Your task to perform on an android device: Open wifi settings Image 0: 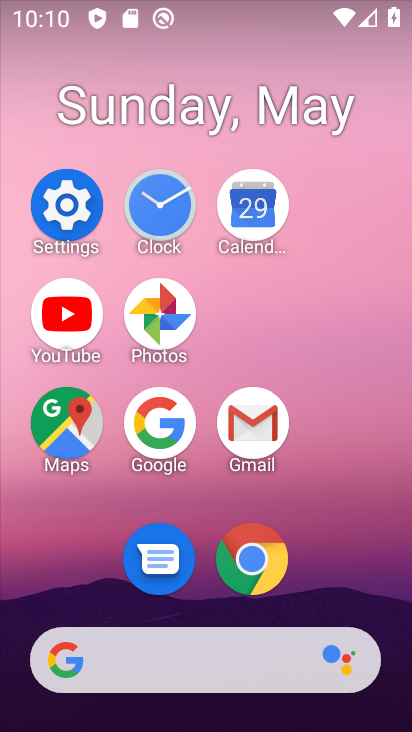
Step 0: click (82, 219)
Your task to perform on an android device: Open wifi settings Image 1: 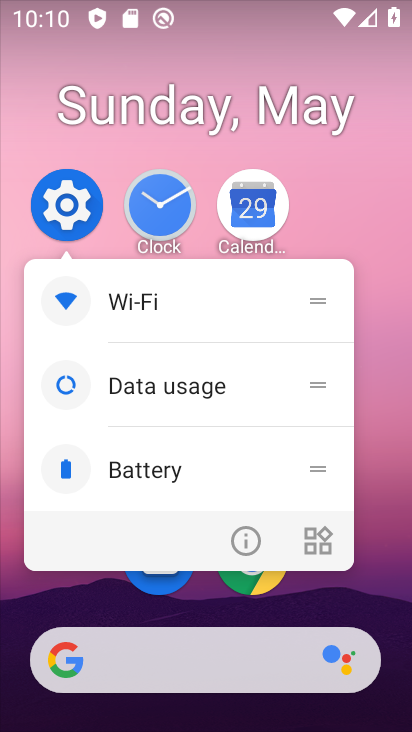
Step 1: click (158, 305)
Your task to perform on an android device: Open wifi settings Image 2: 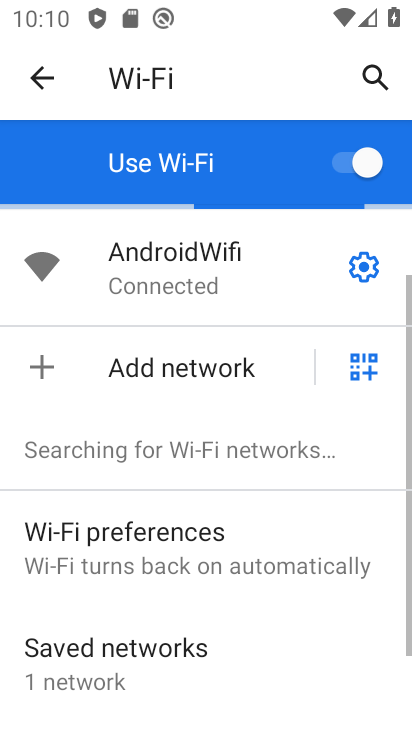
Step 2: click (366, 272)
Your task to perform on an android device: Open wifi settings Image 3: 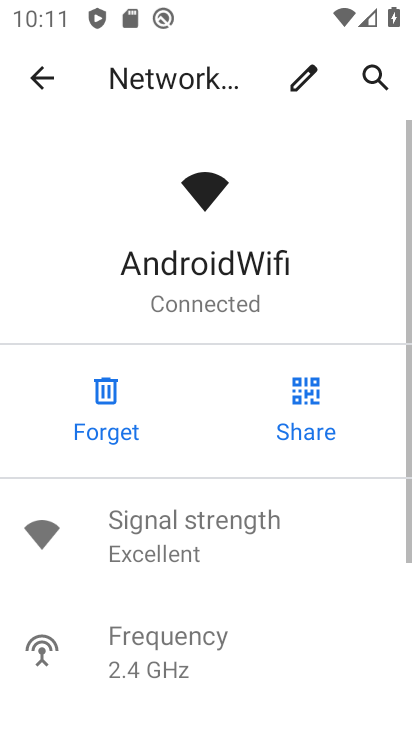
Step 3: task complete